Your task to perform on an android device: Go to Maps Image 0: 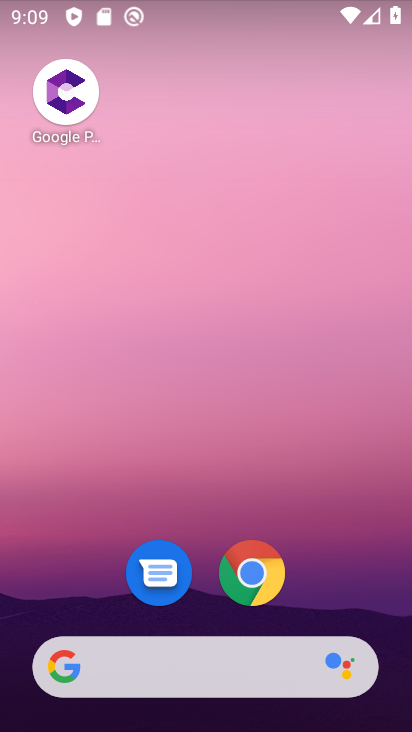
Step 0: drag from (246, 723) to (256, 53)
Your task to perform on an android device: Go to Maps Image 1: 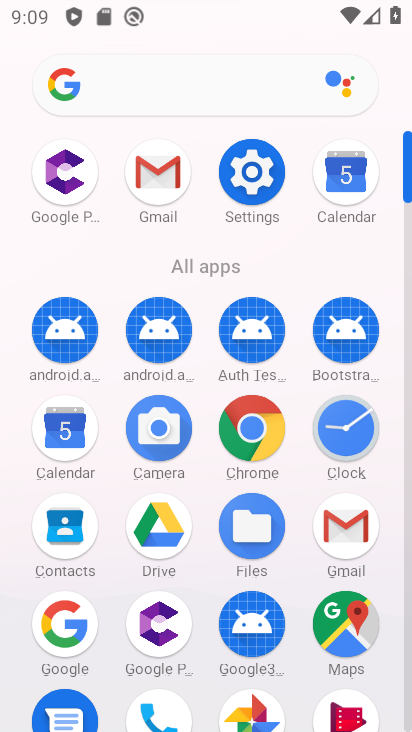
Step 1: click (343, 623)
Your task to perform on an android device: Go to Maps Image 2: 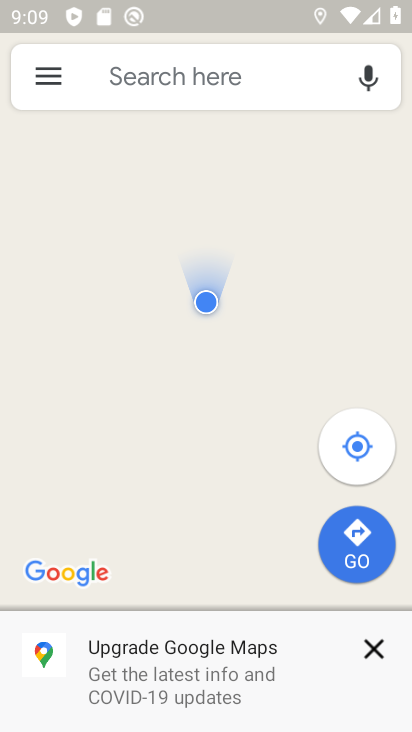
Step 2: task complete